Your task to perform on an android device: Go to accessibility settings Image 0: 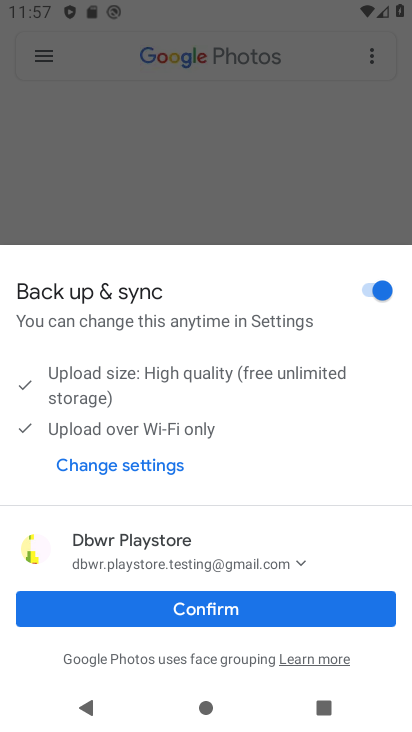
Step 0: press home button
Your task to perform on an android device: Go to accessibility settings Image 1: 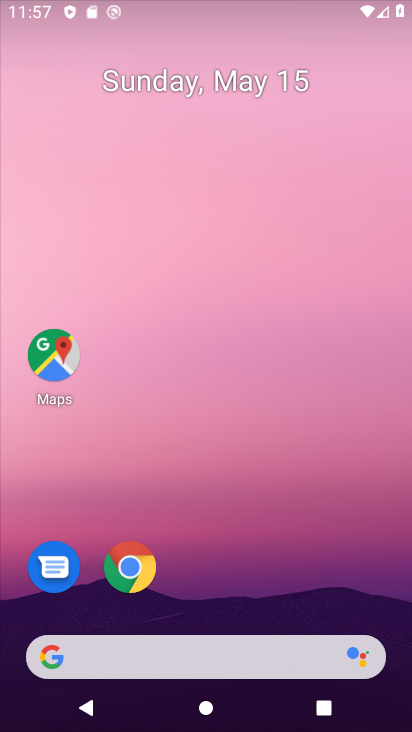
Step 1: drag from (336, 577) to (292, 63)
Your task to perform on an android device: Go to accessibility settings Image 2: 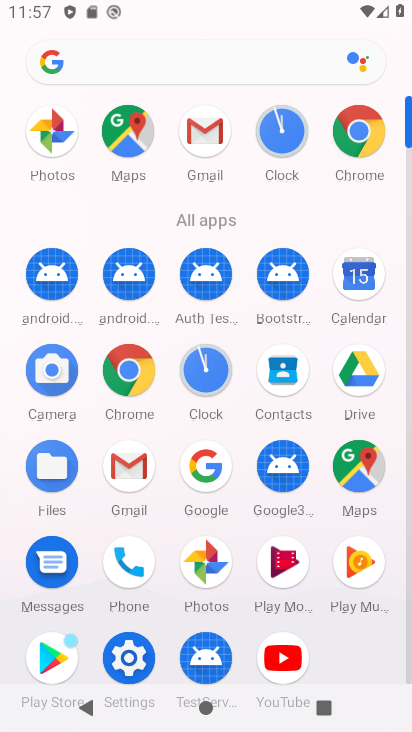
Step 2: click (129, 642)
Your task to perform on an android device: Go to accessibility settings Image 3: 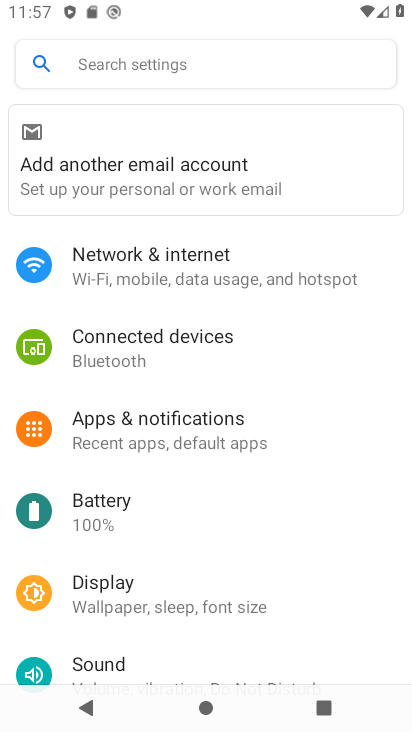
Step 3: drag from (273, 622) to (318, 1)
Your task to perform on an android device: Go to accessibility settings Image 4: 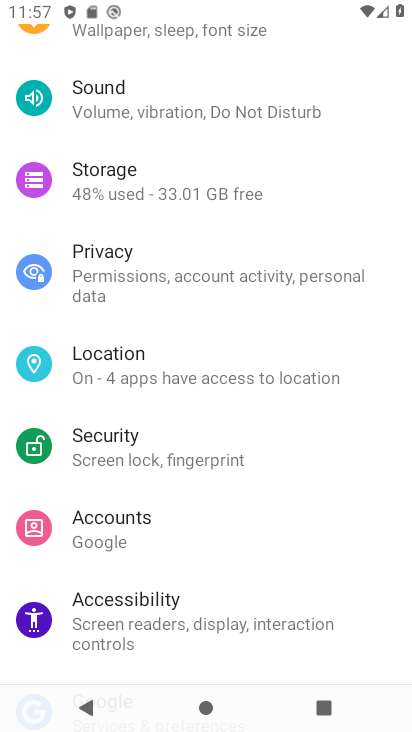
Step 4: click (248, 640)
Your task to perform on an android device: Go to accessibility settings Image 5: 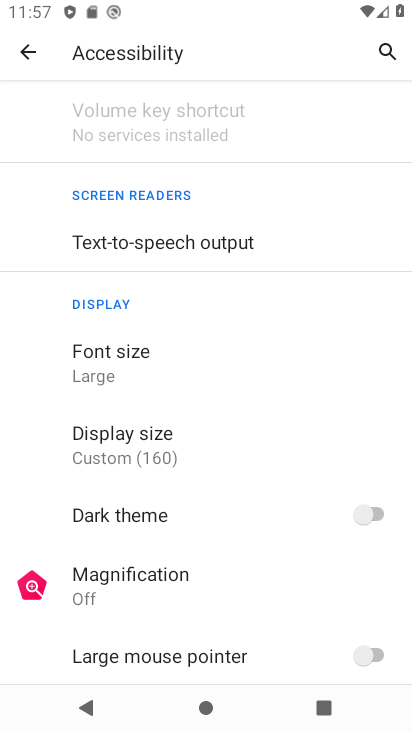
Step 5: task complete